Your task to perform on an android device: Open the Play Movies app and select the watchlist tab. Image 0: 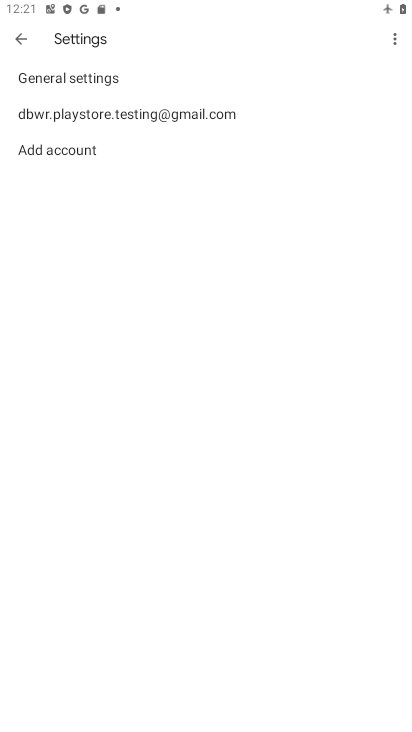
Step 0: drag from (197, 558) to (223, 231)
Your task to perform on an android device: Open the Play Movies app and select the watchlist tab. Image 1: 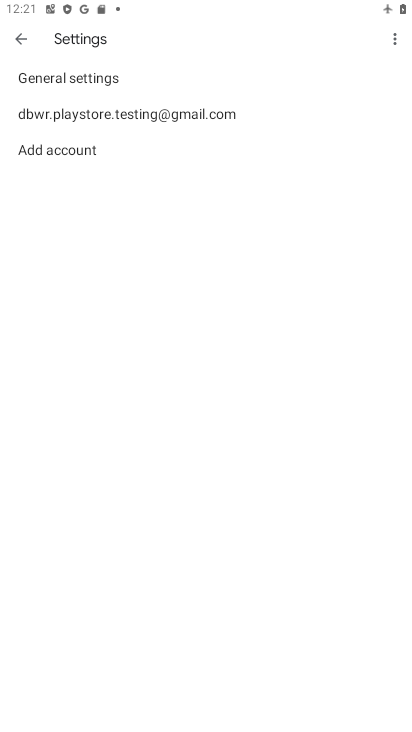
Step 1: press home button
Your task to perform on an android device: Open the Play Movies app and select the watchlist tab. Image 2: 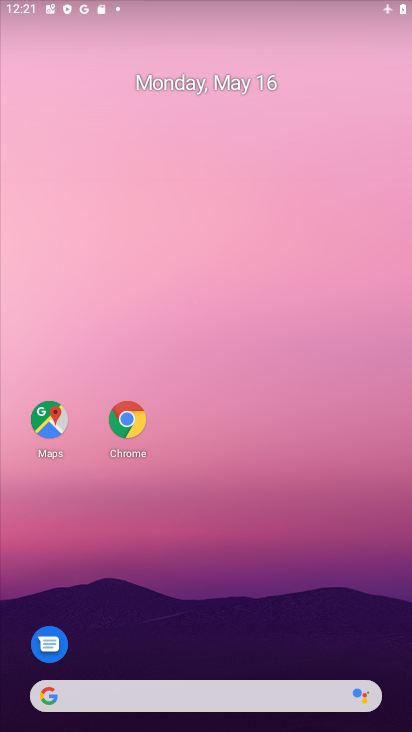
Step 2: drag from (230, 599) to (238, 271)
Your task to perform on an android device: Open the Play Movies app and select the watchlist tab. Image 3: 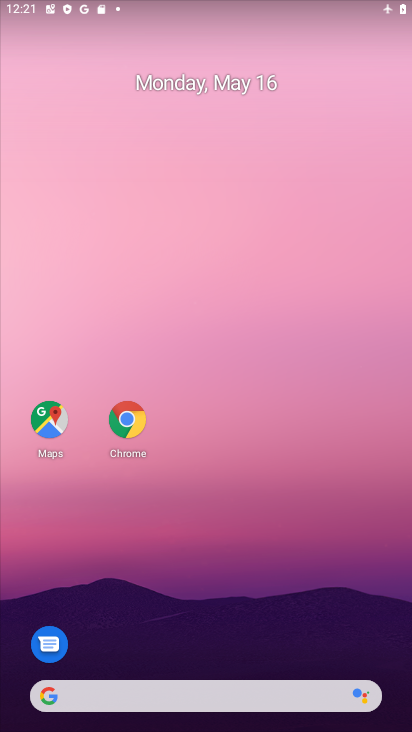
Step 3: drag from (241, 636) to (275, 175)
Your task to perform on an android device: Open the Play Movies app and select the watchlist tab. Image 4: 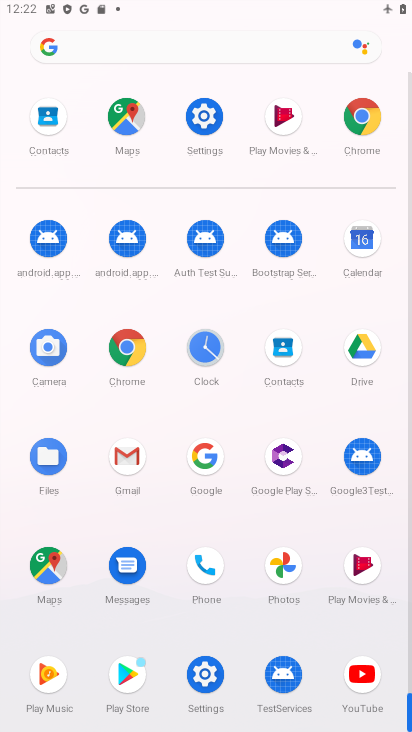
Step 4: click (355, 567)
Your task to perform on an android device: Open the Play Movies app and select the watchlist tab. Image 5: 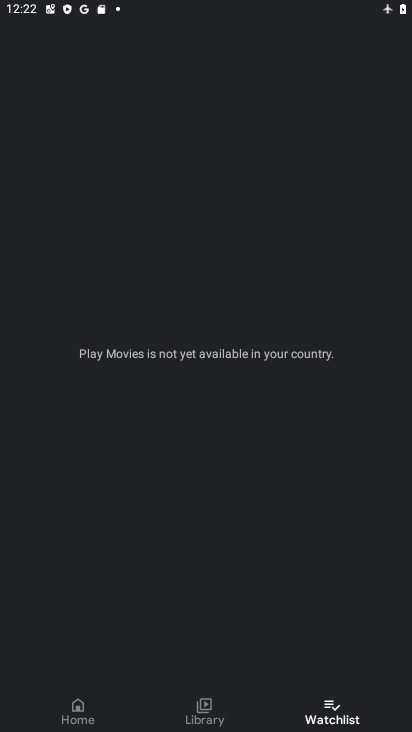
Step 5: click (321, 715)
Your task to perform on an android device: Open the Play Movies app and select the watchlist tab. Image 6: 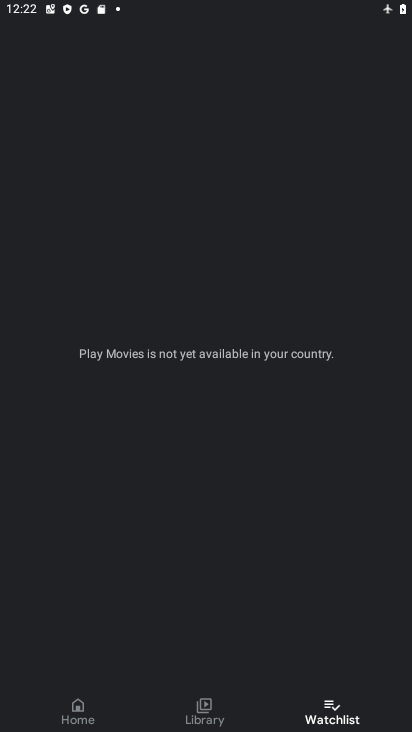
Step 6: task complete